Your task to perform on an android device: turn on showing notifications on the lock screen Image 0: 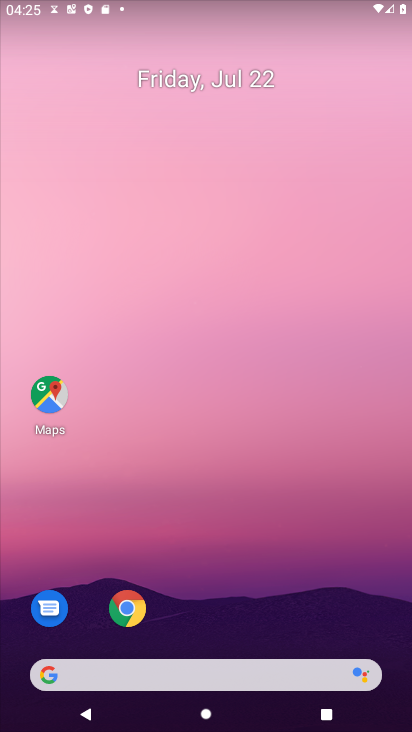
Step 0: drag from (245, 720) to (235, 64)
Your task to perform on an android device: turn on showing notifications on the lock screen Image 1: 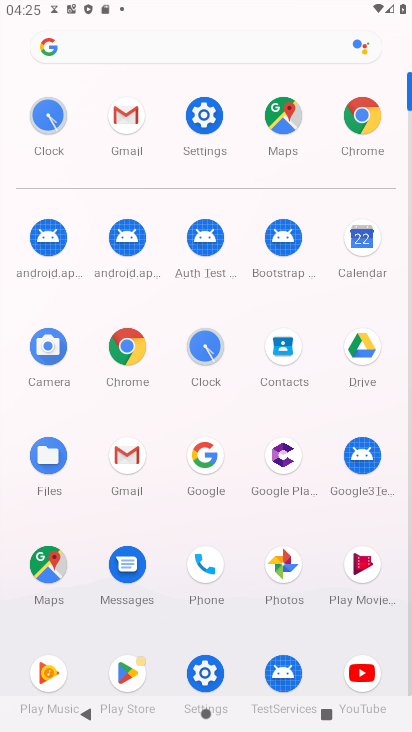
Step 1: click (198, 103)
Your task to perform on an android device: turn on showing notifications on the lock screen Image 2: 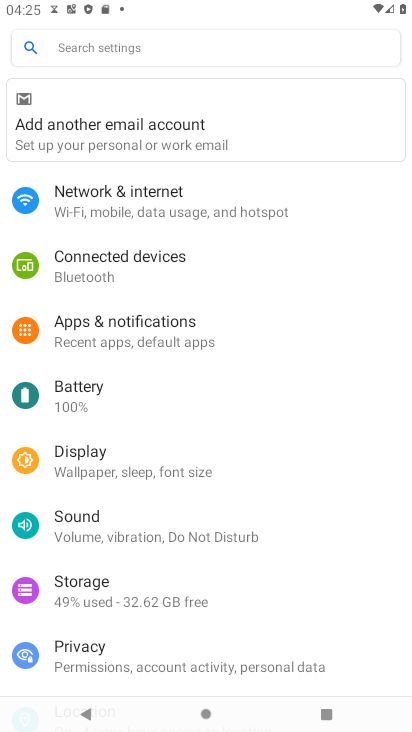
Step 2: click (132, 327)
Your task to perform on an android device: turn on showing notifications on the lock screen Image 3: 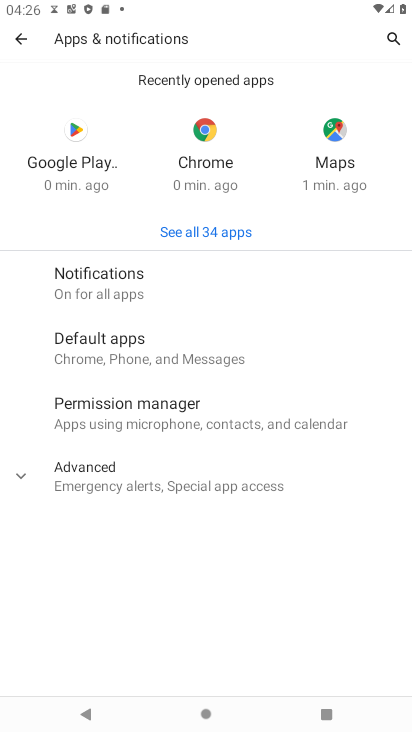
Step 3: click (107, 297)
Your task to perform on an android device: turn on showing notifications on the lock screen Image 4: 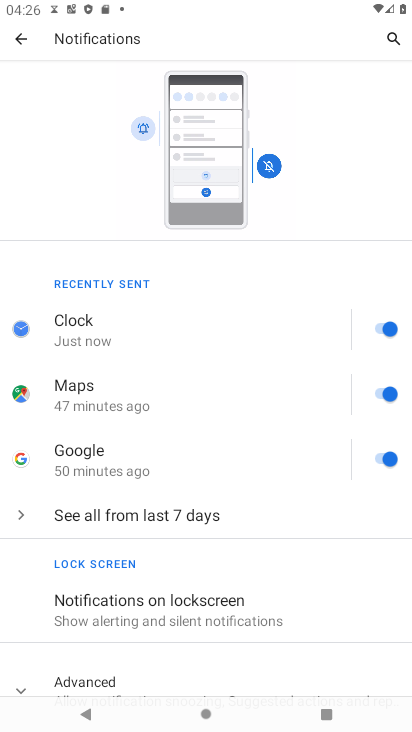
Step 4: task complete